Your task to perform on an android device: Open settings on Google Maps Image 0: 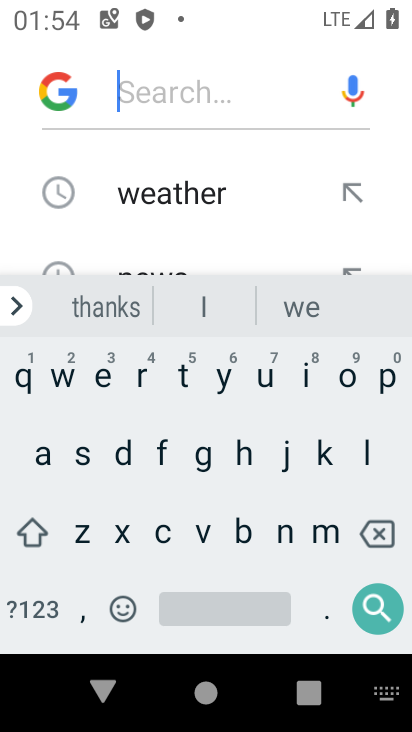
Step 0: press home button
Your task to perform on an android device: Open settings on Google Maps Image 1: 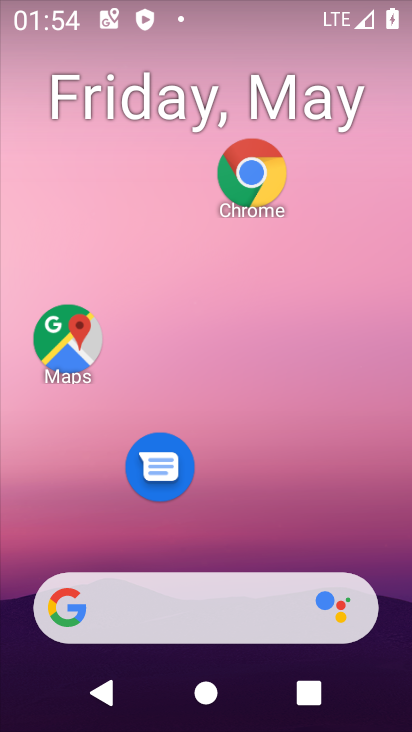
Step 1: drag from (205, 643) to (258, 81)
Your task to perform on an android device: Open settings on Google Maps Image 2: 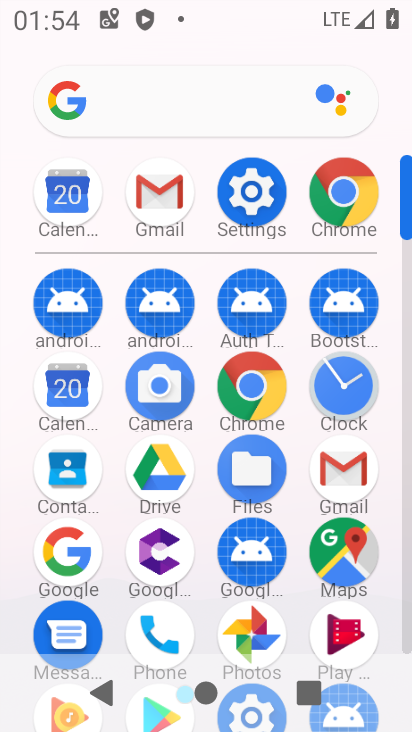
Step 2: click (338, 551)
Your task to perform on an android device: Open settings on Google Maps Image 3: 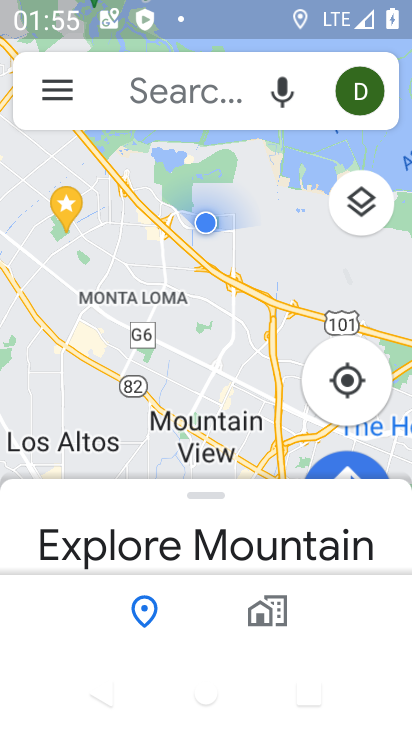
Step 3: click (77, 106)
Your task to perform on an android device: Open settings on Google Maps Image 4: 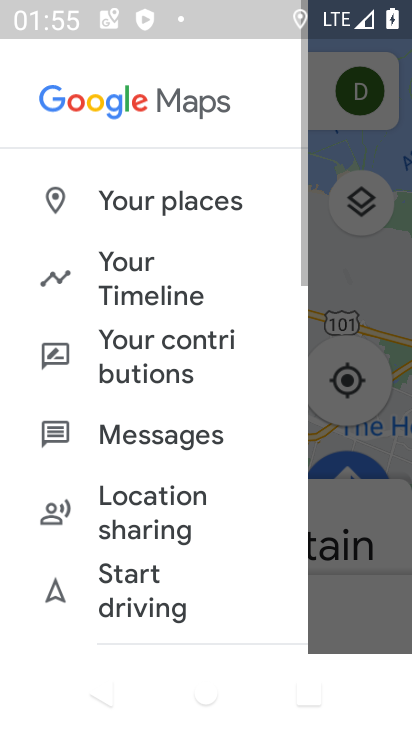
Step 4: drag from (185, 575) to (283, 269)
Your task to perform on an android device: Open settings on Google Maps Image 5: 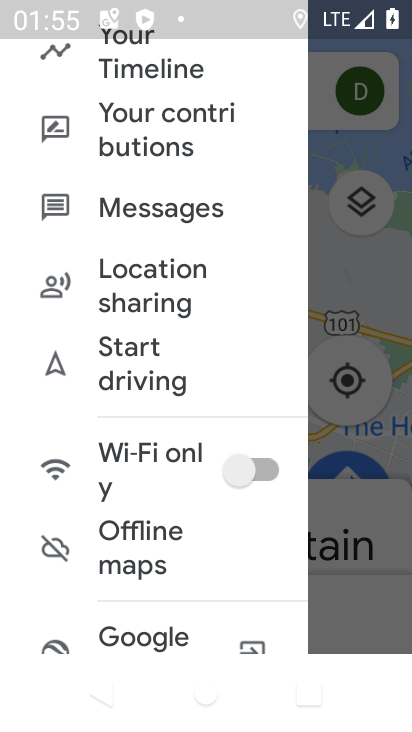
Step 5: drag from (152, 632) to (245, 205)
Your task to perform on an android device: Open settings on Google Maps Image 6: 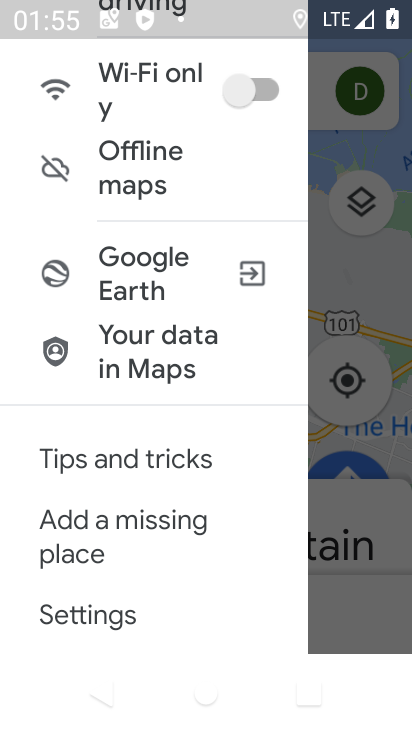
Step 6: click (83, 622)
Your task to perform on an android device: Open settings on Google Maps Image 7: 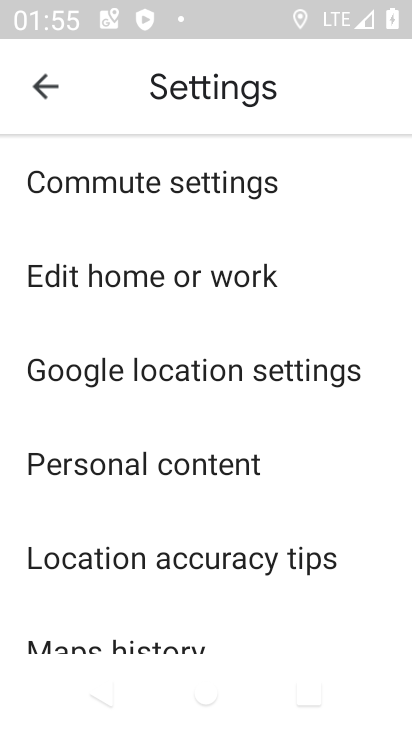
Step 7: task complete